Your task to perform on an android device: open a bookmark in the chrome app Image 0: 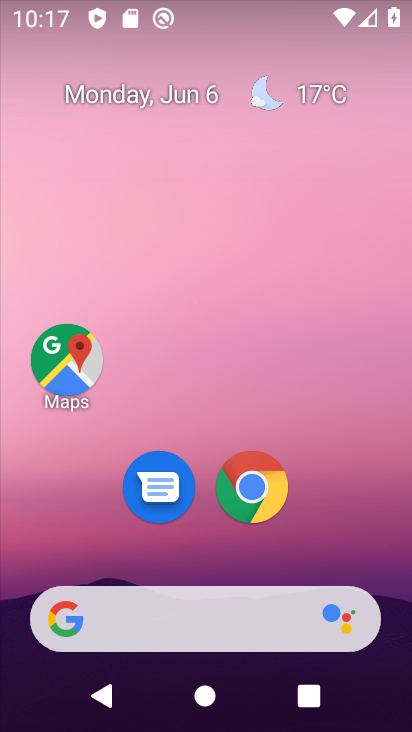
Step 0: click (260, 500)
Your task to perform on an android device: open a bookmark in the chrome app Image 1: 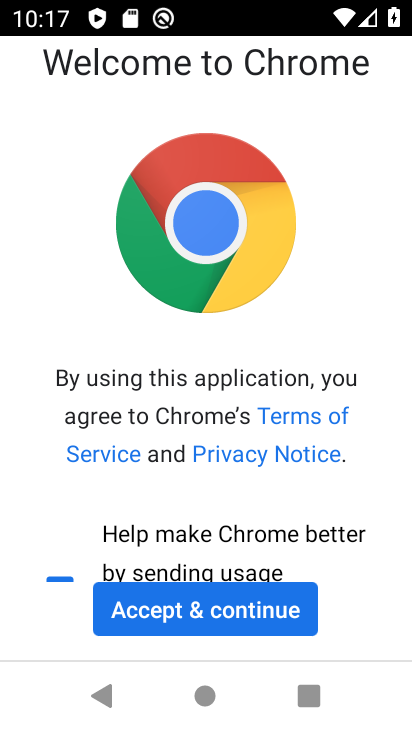
Step 1: click (256, 615)
Your task to perform on an android device: open a bookmark in the chrome app Image 2: 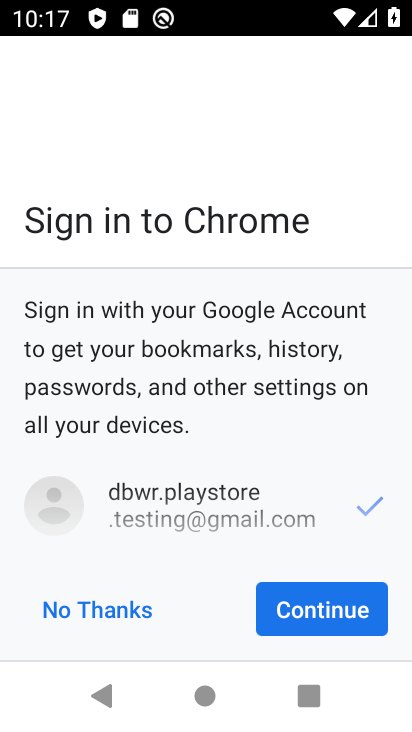
Step 2: click (336, 630)
Your task to perform on an android device: open a bookmark in the chrome app Image 3: 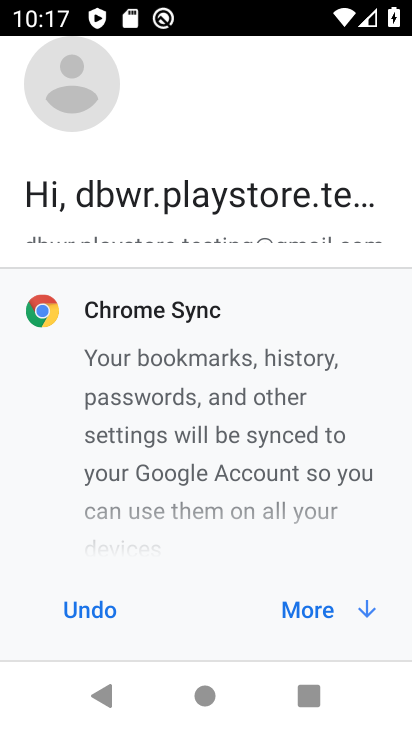
Step 3: click (300, 607)
Your task to perform on an android device: open a bookmark in the chrome app Image 4: 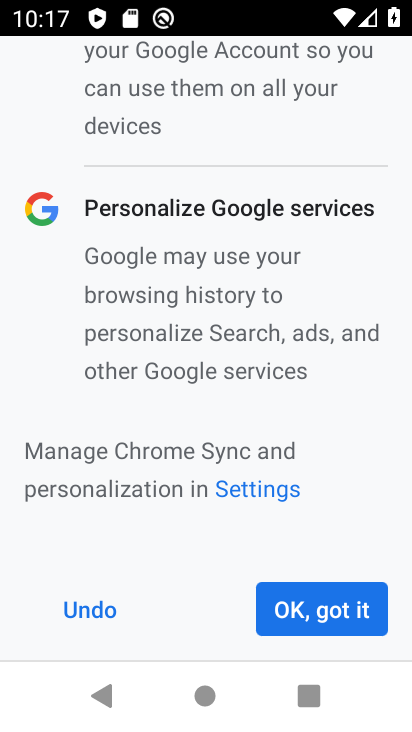
Step 4: click (292, 610)
Your task to perform on an android device: open a bookmark in the chrome app Image 5: 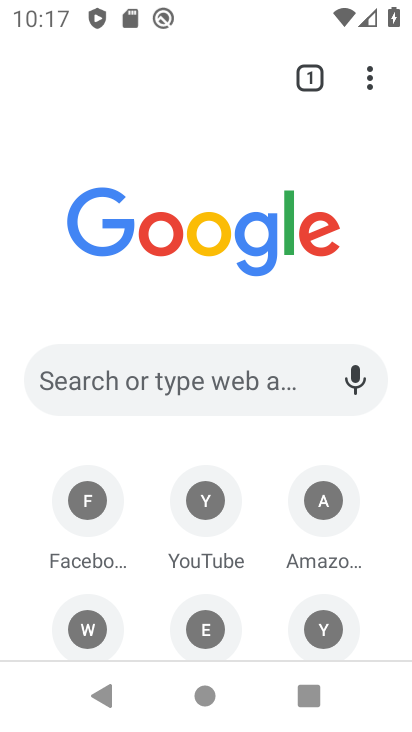
Step 5: click (371, 76)
Your task to perform on an android device: open a bookmark in the chrome app Image 6: 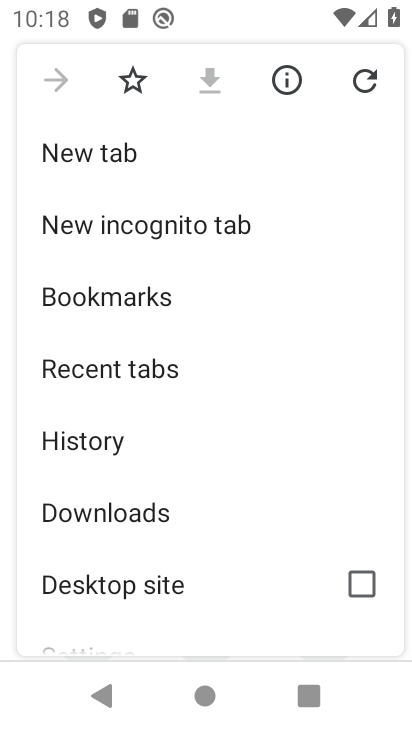
Step 6: click (146, 315)
Your task to perform on an android device: open a bookmark in the chrome app Image 7: 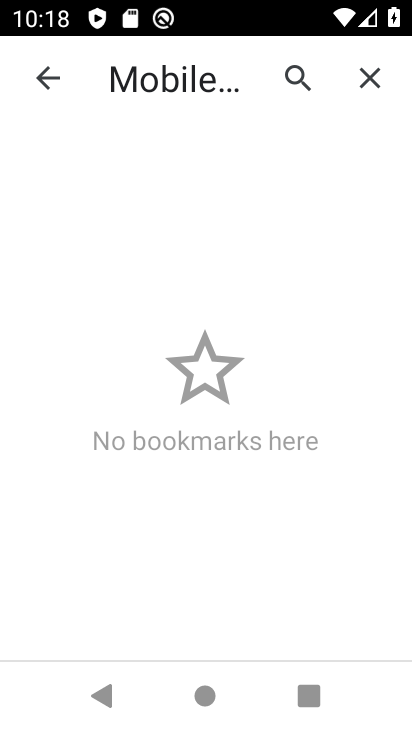
Step 7: task complete